Your task to perform on an android device: check the backup settings in the google photos Image 0: 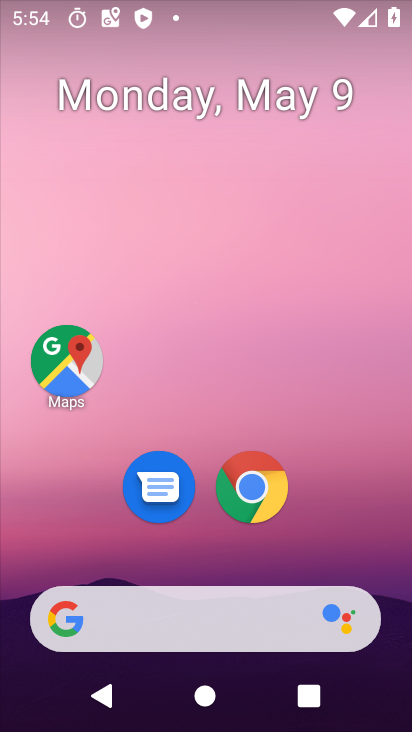
Step 0: drag from (258, 530) to (258, 151)
Your task to perform on an android device: check the backup settings in the google photos Image 1: 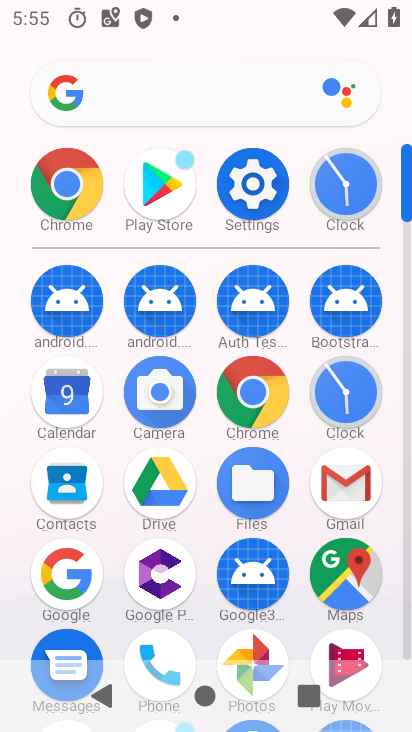
Step 1: click (245, 214)
Your task to perform on an android device: check the backup settings in the google photos Image 2: 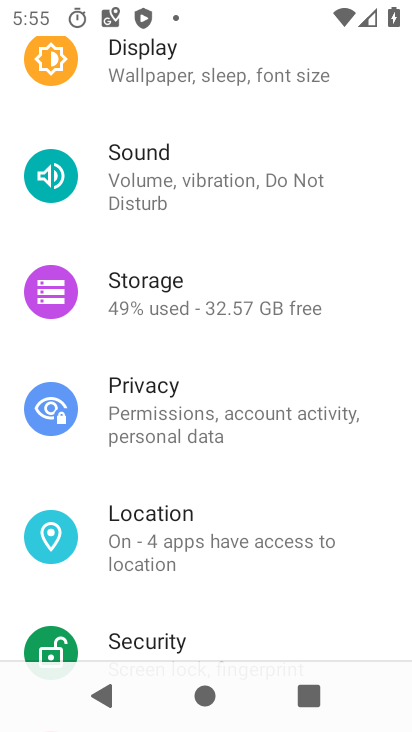
Step 2: click (150, 520)
Your task to perform on an android device: check the backup settings in the google photos Image 3: 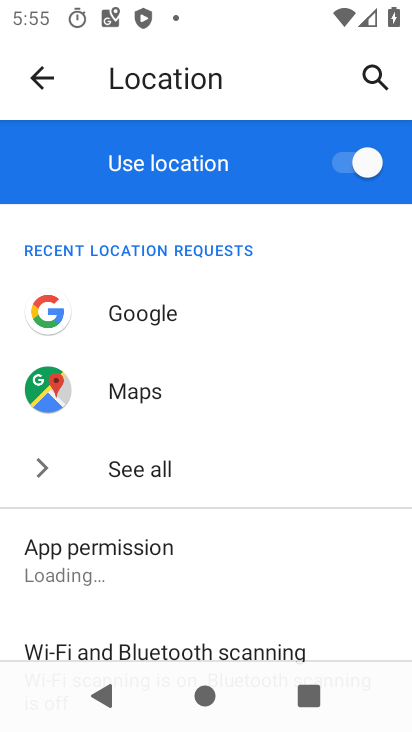
Step 3: drag from (197, 604) to (226, 167)
Your task to perform on an android device: check the backup settings in the google photos Image 4: 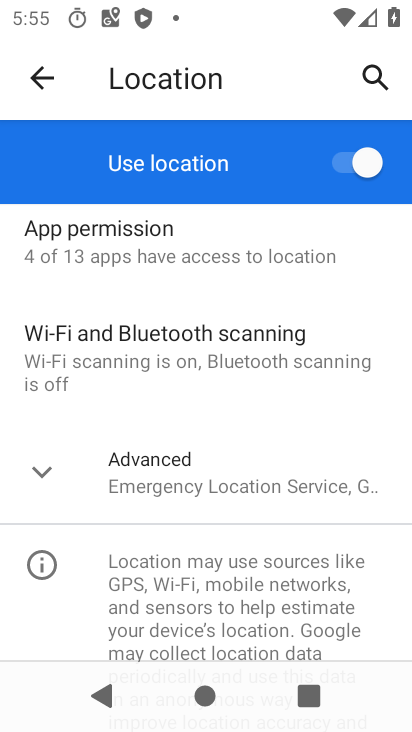
Step 4: click (132, 479)
Your task to perform on an android device: check the backup settings in the google photos Image 5: 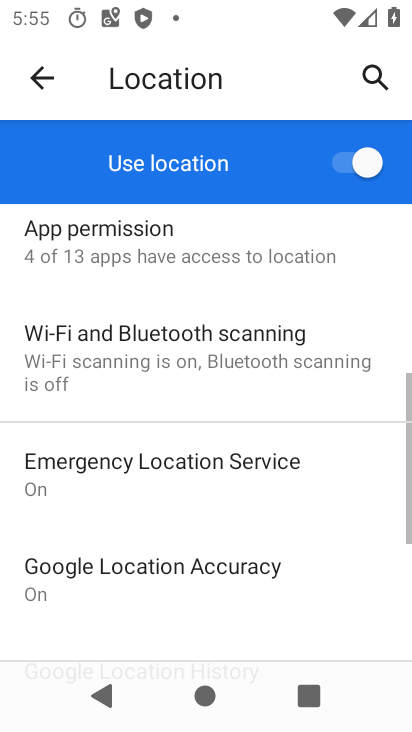
Step 5: drag from (144, 603) to (192, 324)
Your task to perform on an android device: check the backup settings in the google photos Image 6: 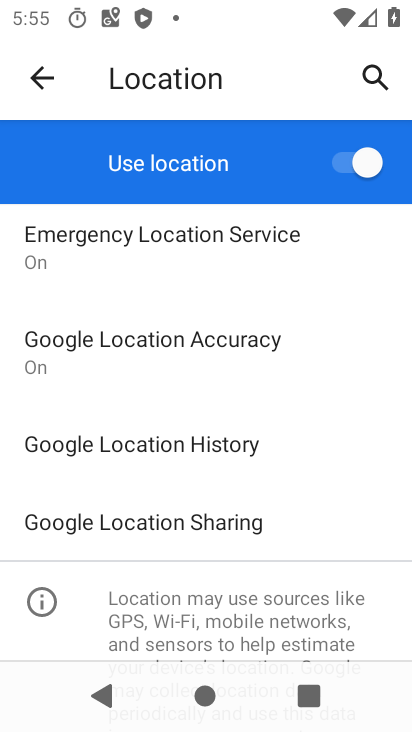
Step 6: click (95, 374)
Your task to perform on an android device: check the backup settings in the google photos Image 7: 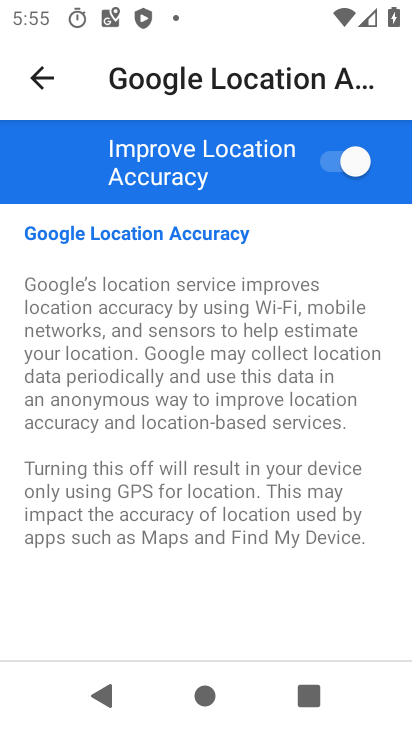
Step 7: click (340, 172)
Your task to perform on an android device: check the backup settings in the google photos Image 8: 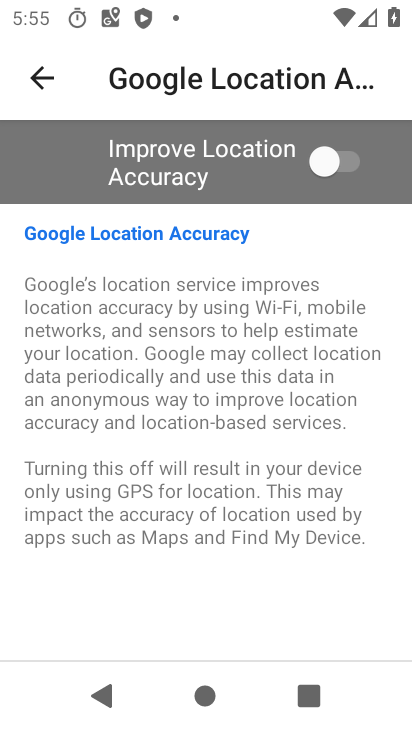
Step 8: task complete